Your task to perform on an android device: Show the shopping cart on amazon.com. Add dell xps to the cart on amazon.com Image 0: 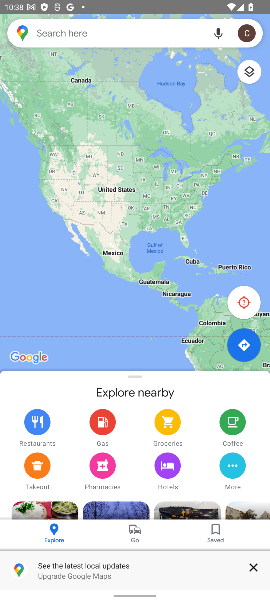
Step 0: press home button
Your task to perform on an android device: Show the shopping cart on amazon.com. Add dell xps to the cart on amazon.com Image 1: 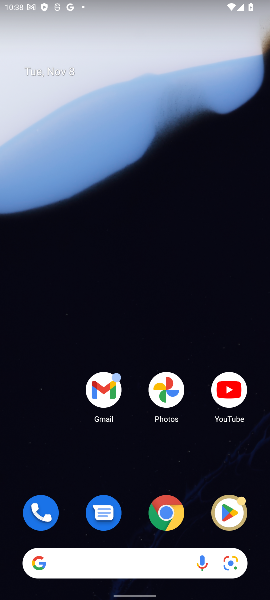
Step 1: click (165, 513)
Your task to perform on an android device: Show the shopping cart on amazon.com. Add dell xps to the cart on amazon.com Image 2: 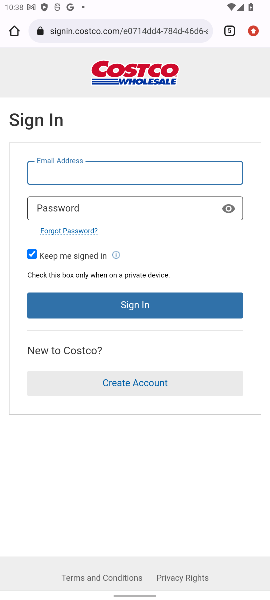
Step 2: press back button
Your task to perform on an android device: Show the shopping cart on amazon.com. Add dell xps to the cart on amazon.com Image 3: 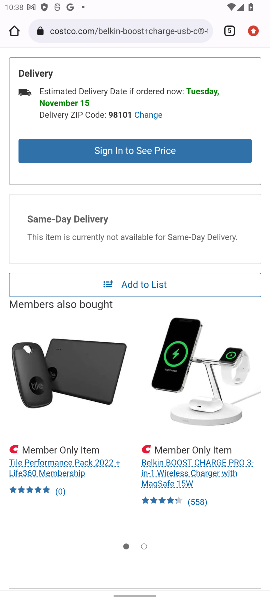
Step 3: click (228, 31)
Your task to perform on an android device: Show the shopping cart on amazon.com. Add dell xps to the cart on amazon.com Image 4: 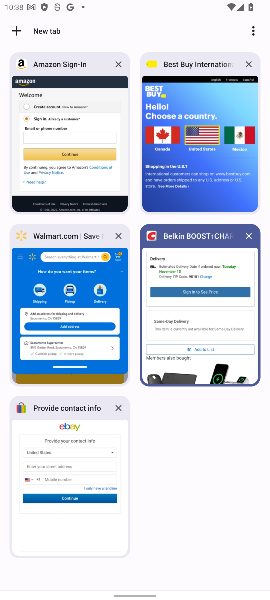
Step 4: click (72, 139)
Your task to perform on an android device: Show the shopping cart on amazon.com. Add dell xps to the cart on amazon.com Image 5: 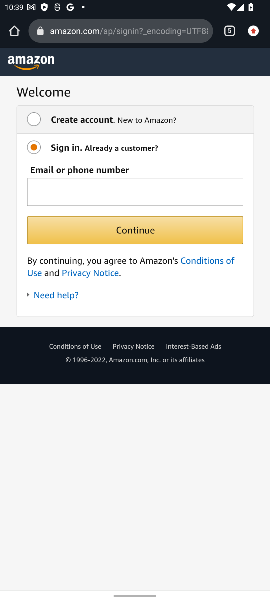
Step 5: press back button
Your task to perform on an android device: Show the shopping cart on amazon.com. Add dell xps to the cart on amazon.com Image 6: 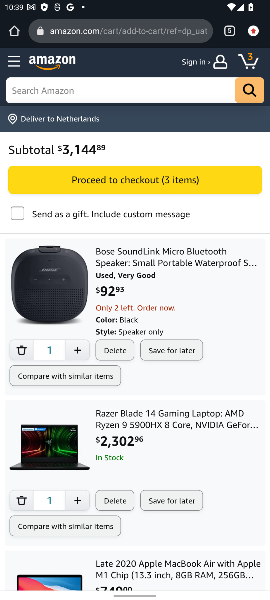
Step 6: click (69, 93)
Your task to perform on an android device: Show the shopping cart on amazon.com. Add dell xps to the cart on amazon.com Image 7: 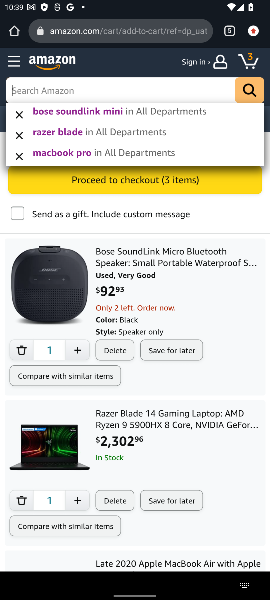
Step 7: type "dell xps"
Your task to perform on an android device: Show the shopping cart on amazon.com. Add dell xps to the cart on amazon.com Image 8: 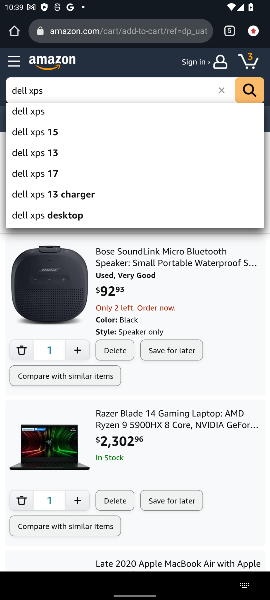
Step 8: click (37, 111)
Your task to perform on an android device: Show the shopping cart on amazon.com. Add dell xps to the cart on amazon.com Image 9: 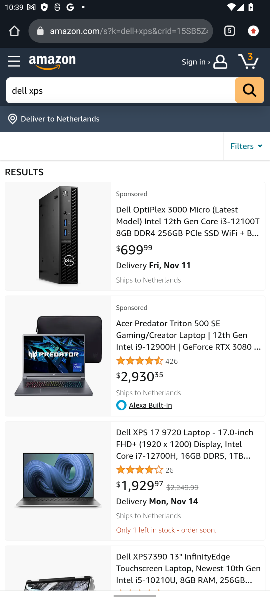
Step 9: click (162, 436)
Your task to perform on an android device: Show the shopping cart on amazon.com. Add dell xps to the cart on amazon.com Image 10: 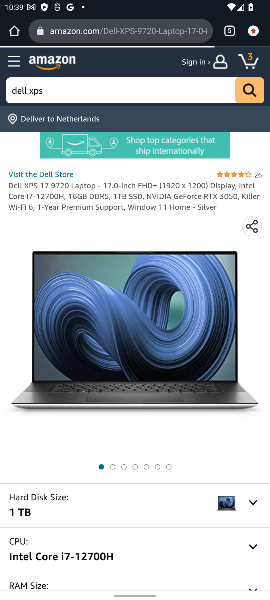
Step 10: drag from (172, 500) to (224, 204)
Your task to perform on an android device: Show the shopping cart on amazon.com. Add dell xps to the cart on amazon.com Image 11: 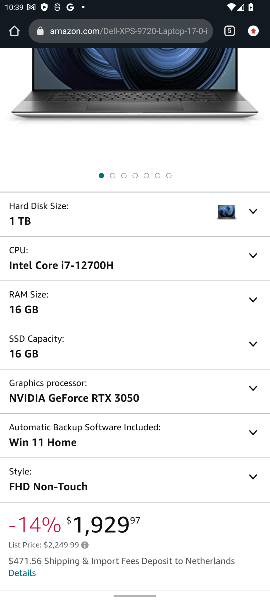
Step 11: drag from (160, 538) to (220, 270)
Your task to perform on an android device: Show the shopping cart on amazon.com. Add dell xps to the cart on amazon.com Image 12: 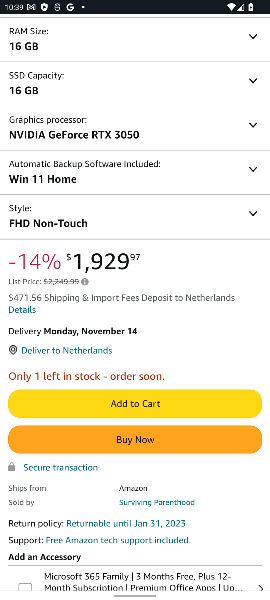
Step 12: click (168, 405)
Your task to perform on an android device: Show the shopping cart on amazon.com. Add dell xps to the cart on amazon.com Image 13: 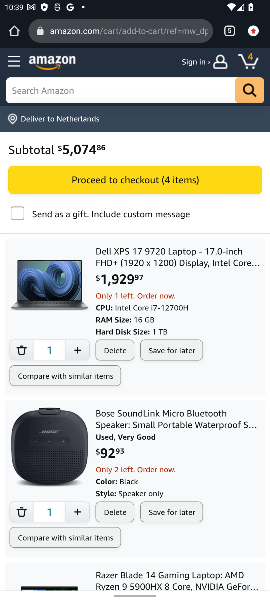
Step 13: task complete